Your task to perform on an android device: change the clock style Image 0: 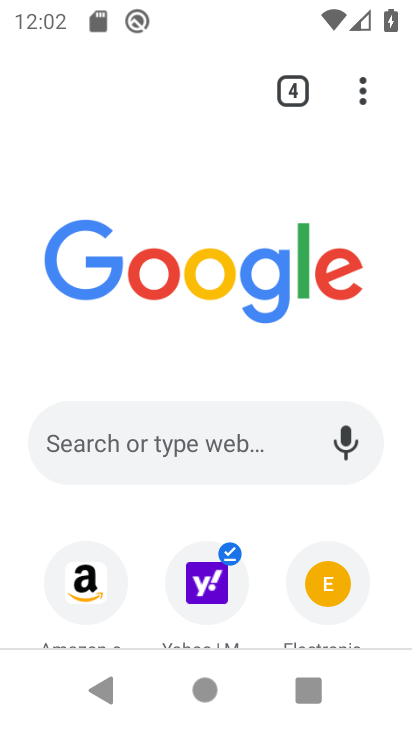
Step 0: press home button
Your task to perform on an android device: change the clock style Image 1: 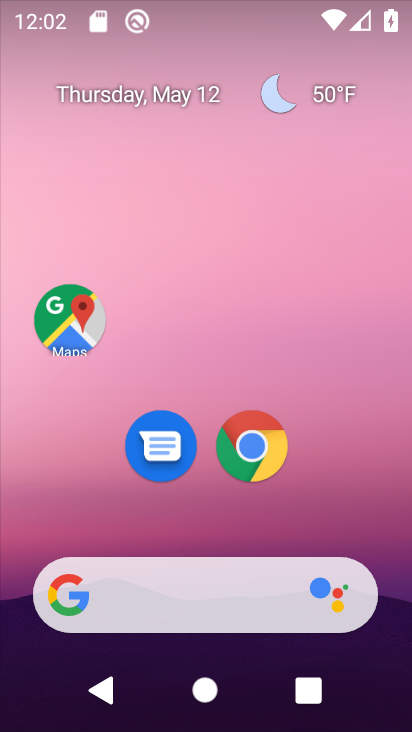
Step 1: drag from (302, 491) to (257, 71)
Your task to perform on an android device: change the clock style Image 2: 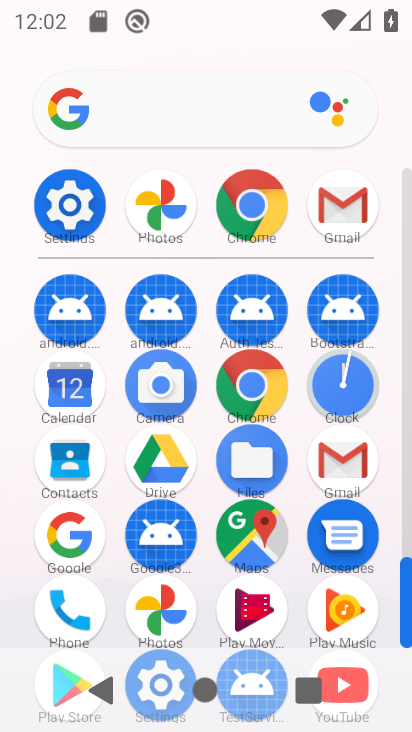
Step 2: click (346, 383)
Your task to perform on an android device: change the clock style Image 3: 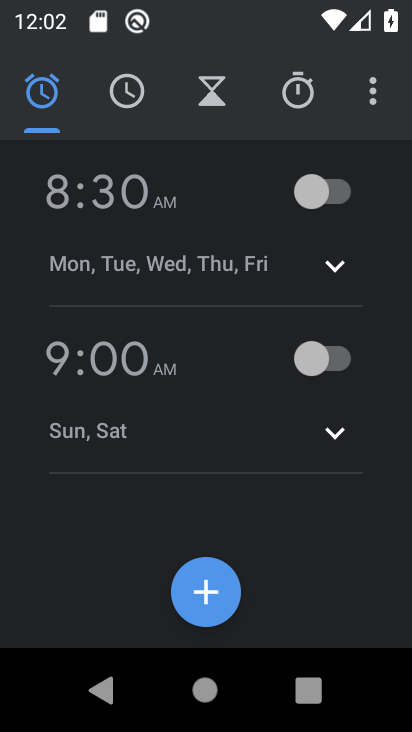
Step 3: click (375, 103)
Your task to perform on an android device: change the clock style Image 4: 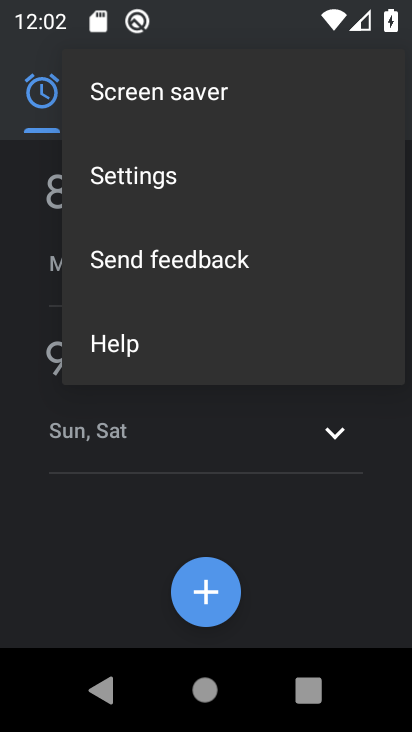
Step 4: click (196, 188)
Your task to perform on an android device: change the clock style Image 5: 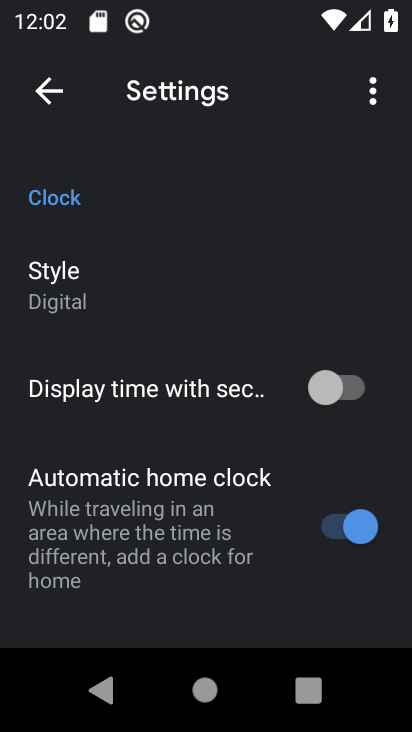
Step 5: click (84, 288)
Your task to perform on an android device: change the clock style Image 6: 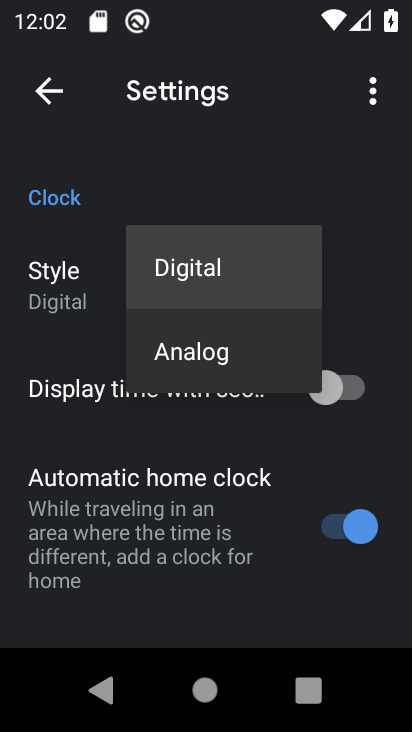
Step 6: click (197, 336)
Your task to perform on an android device: change the clock style Image 7: 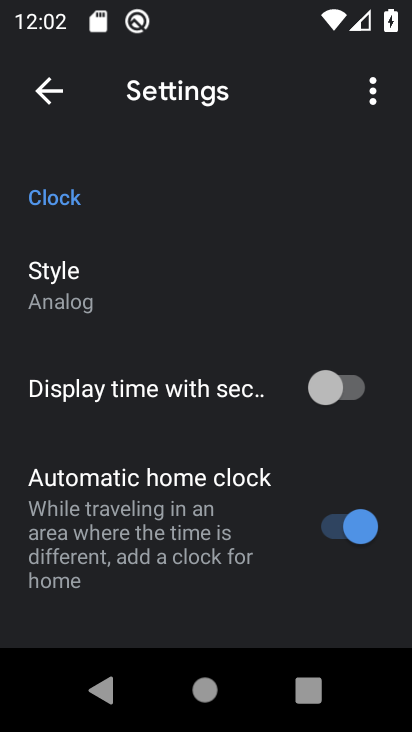
Step 7: task complete